Your task to perform on an android device: star an email in the gmail app Image 0: 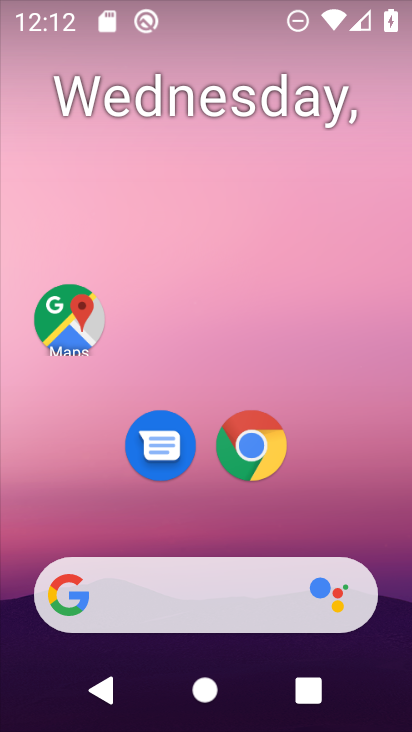
Step 0: drag from (396, 563) to (232, 37)
Your task to perform on an android device: star an email in the gmail app Image 1: 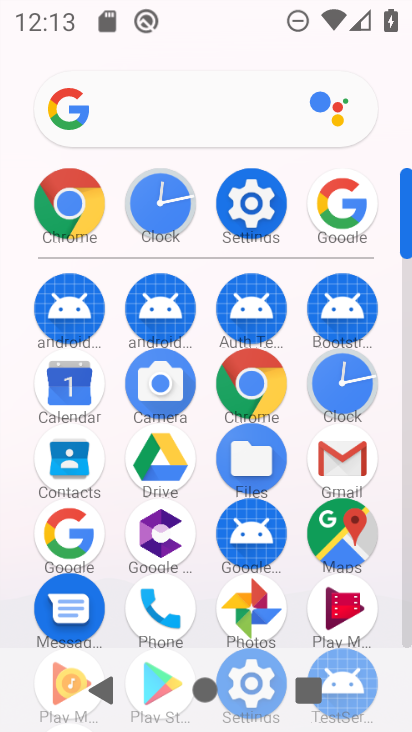
Step 1: click (333, 465)
Your task to perform on an android device: star an email in the gmail app Image 2: 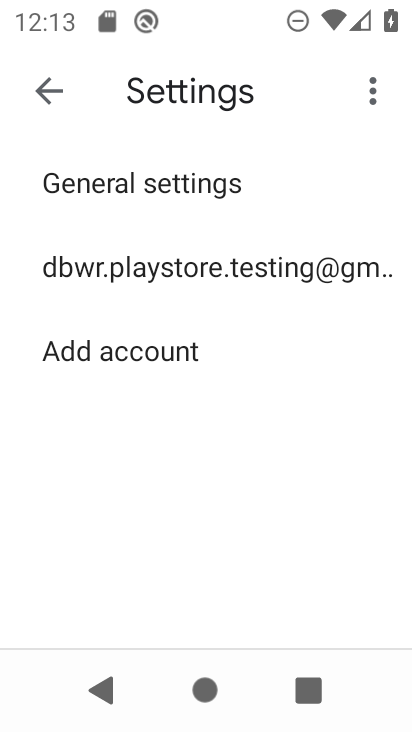
Step 2: press back button
Your task to perform on an android device: star an email in the gmail app Image 3: 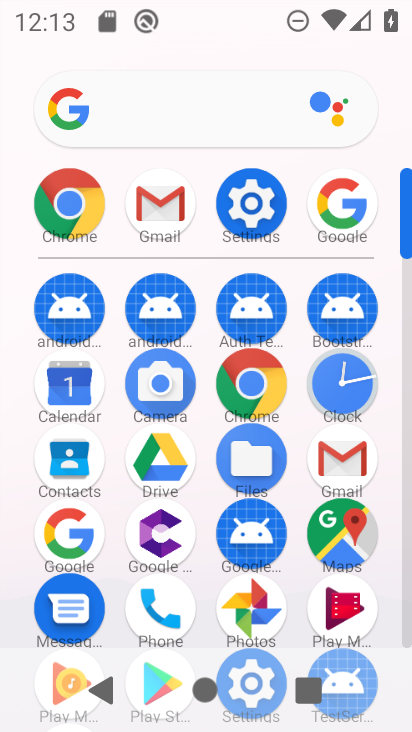
Step 3: click (354, 491)
Your task to perform on an android device: star an email in the gmail app Image 4: 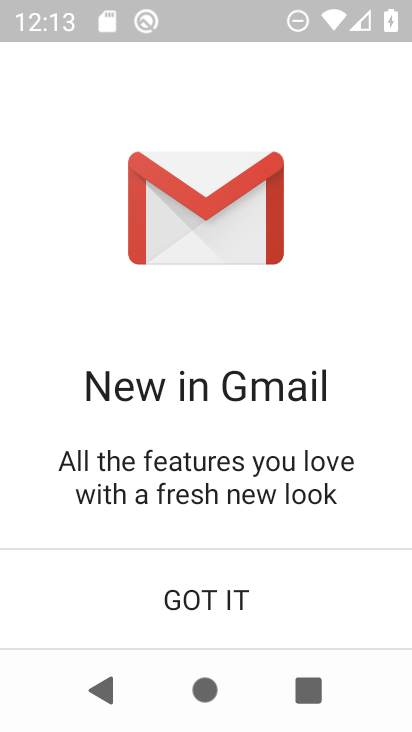
Step 4: click (216, 588)
Your task to perform on an android device: star an email in the gmail app Image 5: 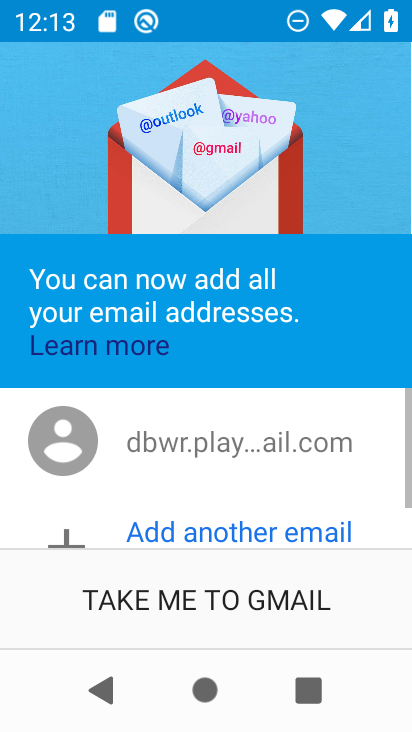
Step 5: click (216, 588)
Your task to perform on an android device: star an email in the gmail app Image 6: 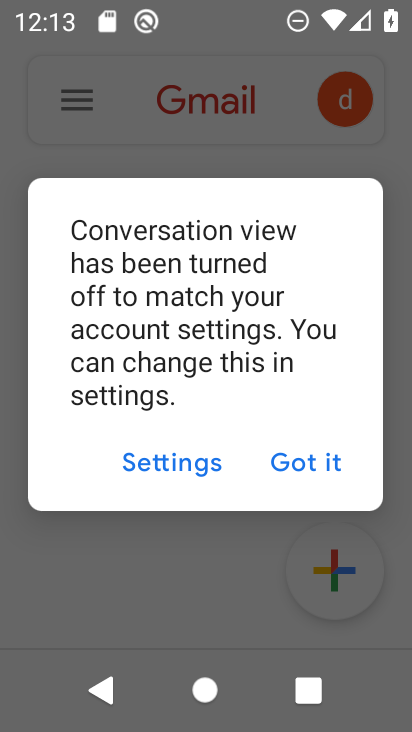
Step 6: click (307, 463)
Your task to perform on an android device: star an email in the gmail app Image 7: 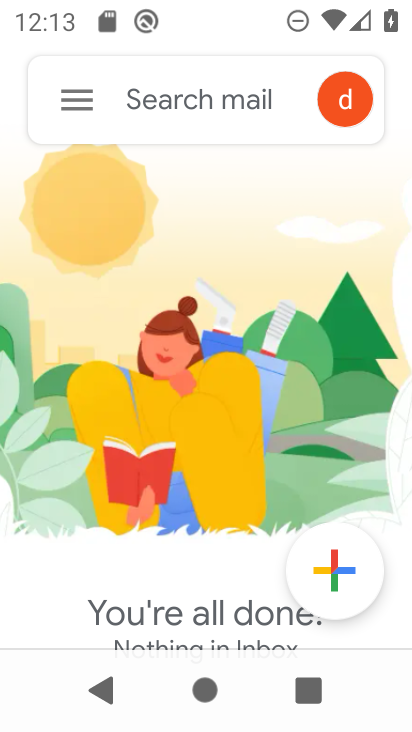
Step 7: task complete